Your task to perform on an android device: Is it going to rain today? Image 0: 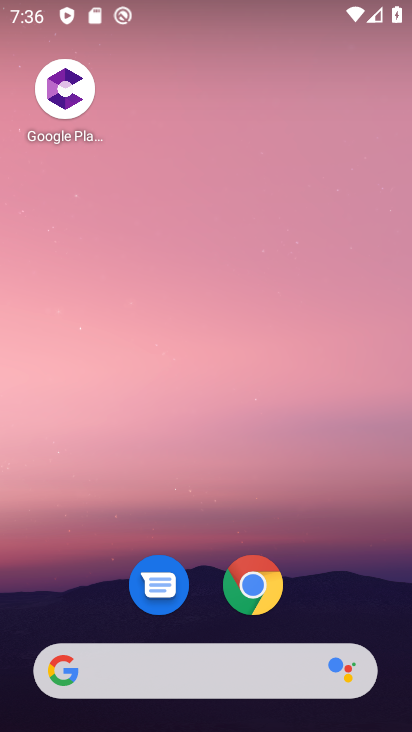
Step 0: click (241, 682)
Your task to perform on an android device: Is it going to rain today? Image 1: 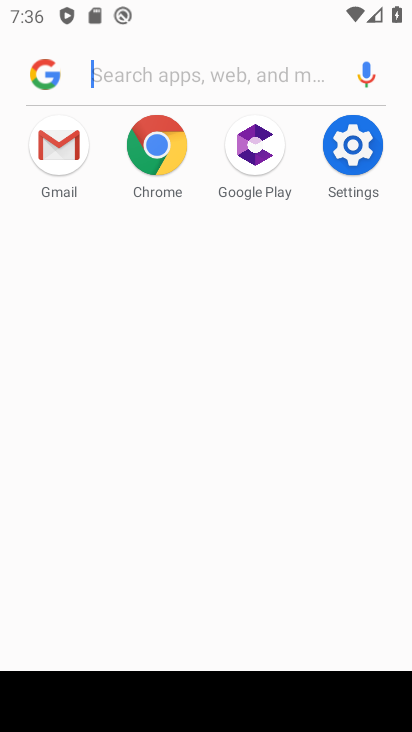
Step 1: click (48, 81)
Your task to perform on an android device: Is it going to rain today? Image 2: 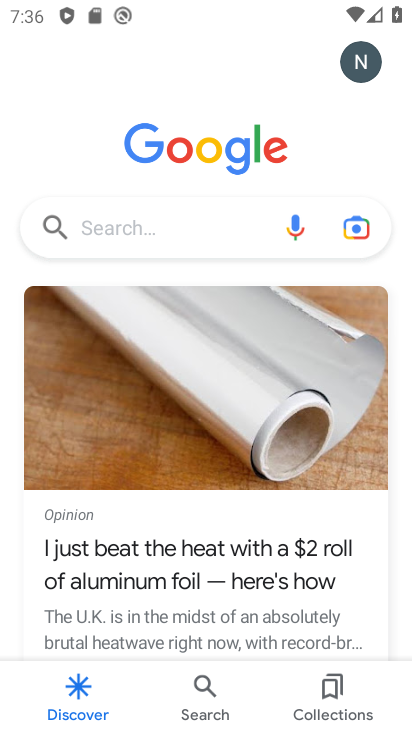
Step 2: click (156, 224)
Your task to perform on an android device: Is it going to rain today? Image 3: 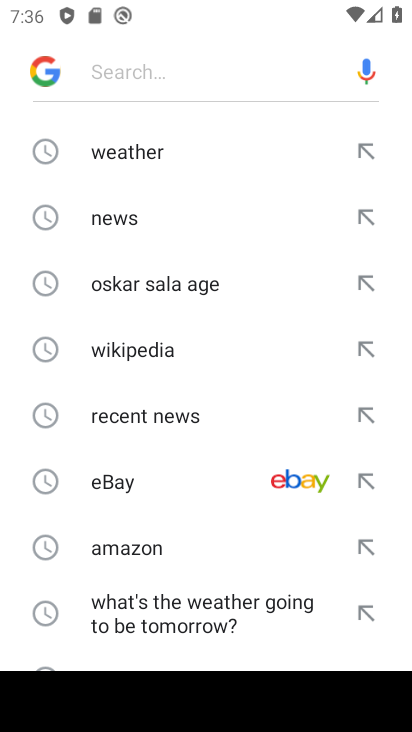
Step 3: click (140, 142)
Your task to perform on an android device: Is it going to rain today? Image 4: 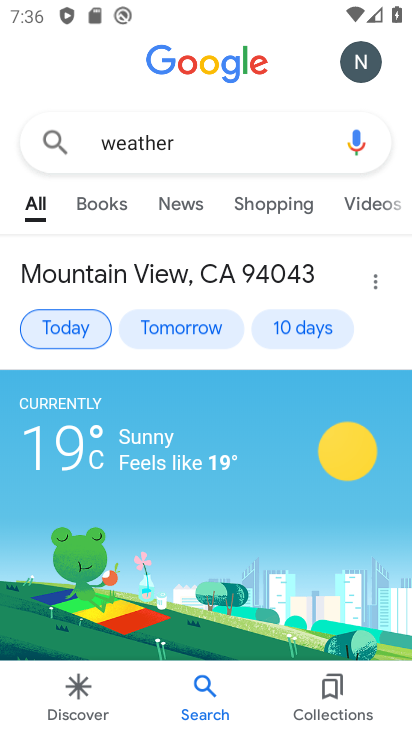
Step 4: click (77, 327)
Your task to perform on an android device: Is it going to rain today? Image 5: 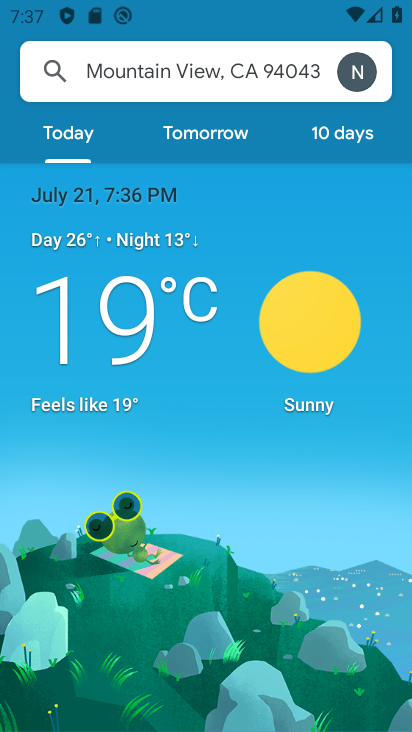
Step 5: drag from (182, 634) to (272, 10)
Your task to perform on an android device: Is it going to rain today? Image 6: 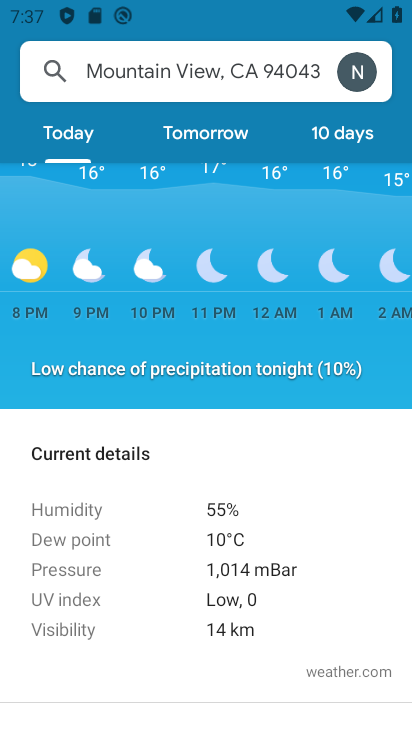
Step 6: drag from (188, 570) to (232, 61)
Your task to perform on an android device: Is it going to rain today? Image 7: 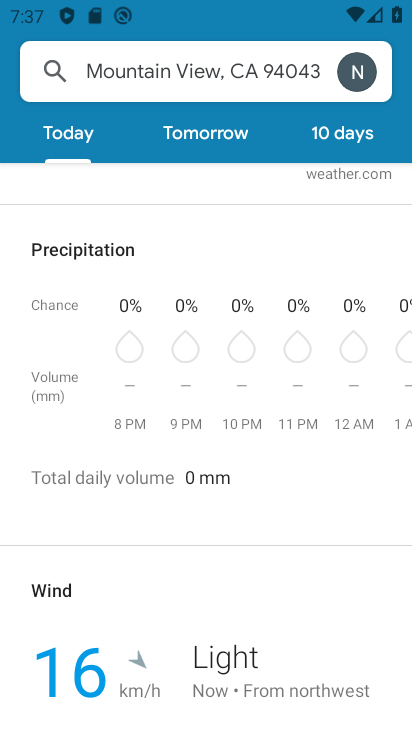
Step 7: drag from (176, 591) to (232, 74)
Your task to perform on an android device: Is it going to rain today? Image 8: 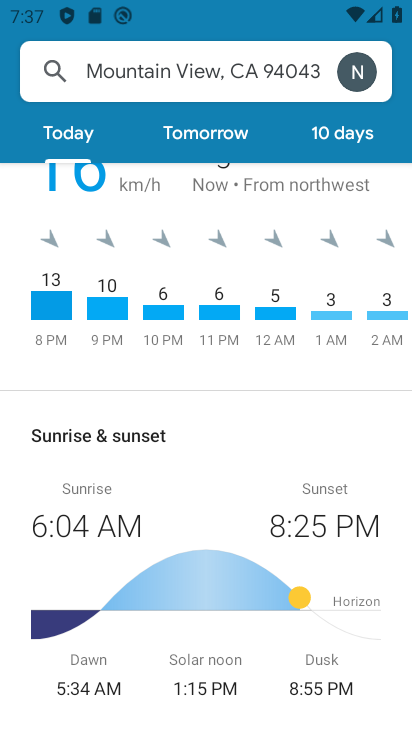
Step 8: drag from (209, 477) to (250, 144)
Your task to perform on an android device: Is it going to rain today? Image 9: 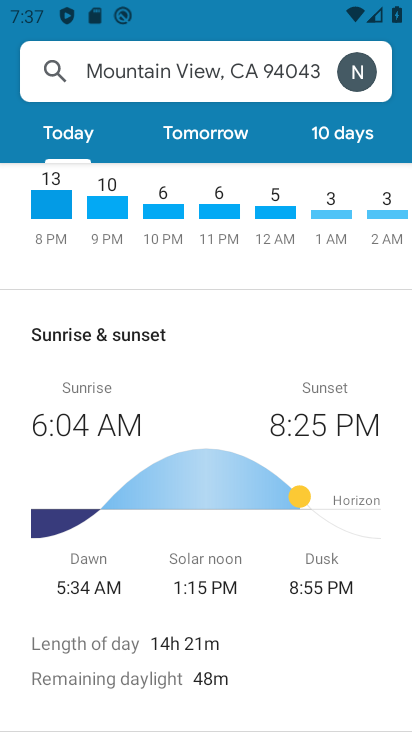
Step 9: drag from (211, 339) to (217, 709)
Your task to perform on an android device: Is it going to rain today? Image 10: 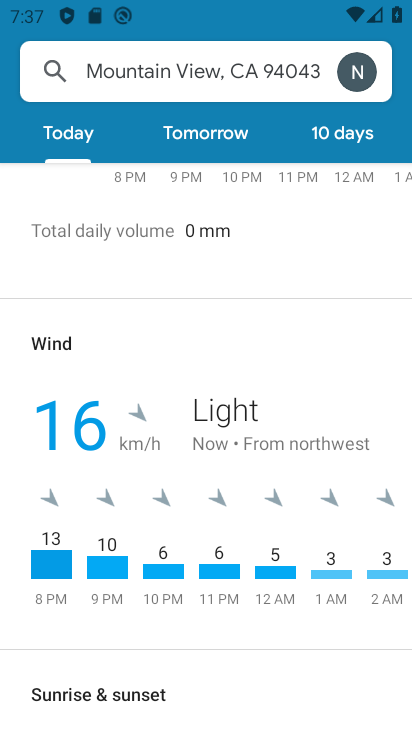
Step 10: drag from (244, 331) to (265, 602)
Your task to perform on an android device: Is it going to rain today? Image 11: 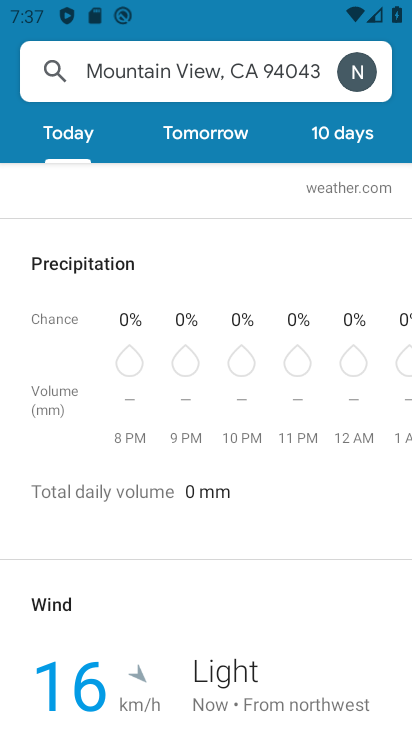
Step 11: drag from (324, 364) to (4, 377)
Your task to perform on an android device: Is it going to rain today? Image 12: 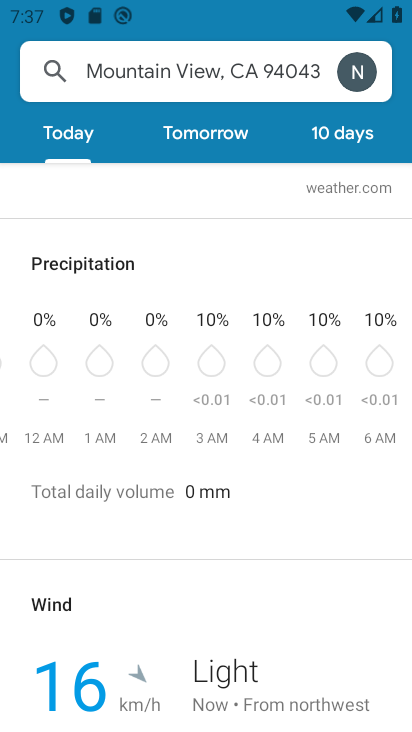
Step 12: click (320, 355)
Your task to perform on an android device: Is it going to rain today? Image 13: 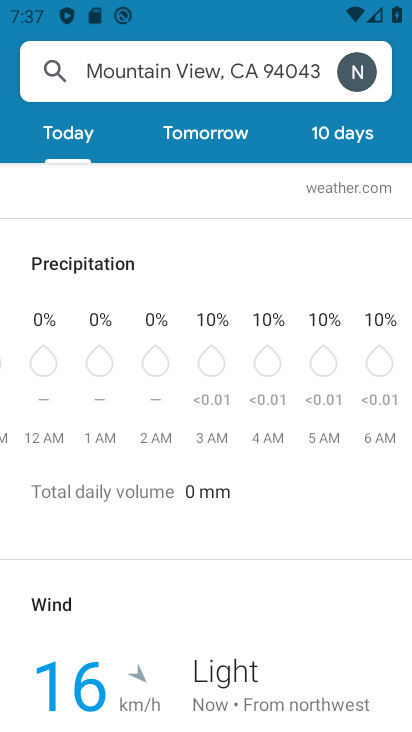
Step 13: task complete